Your task to perform on an android device: What's the weather? Image 0: 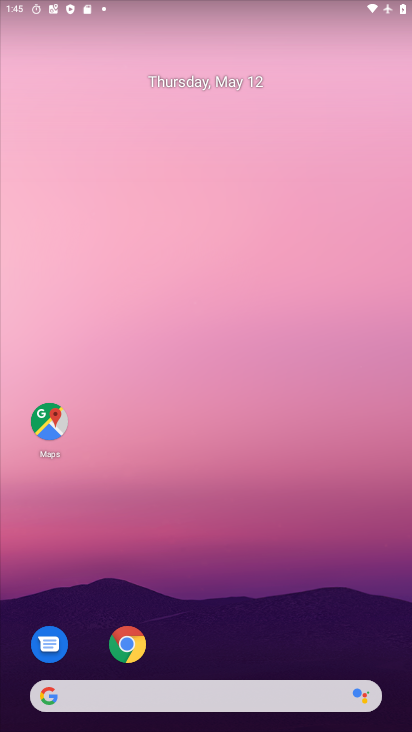
Step 0: drag from (277, 604) to (255, 99)
Your task to perform on an android device: What's the weather? Image 1: 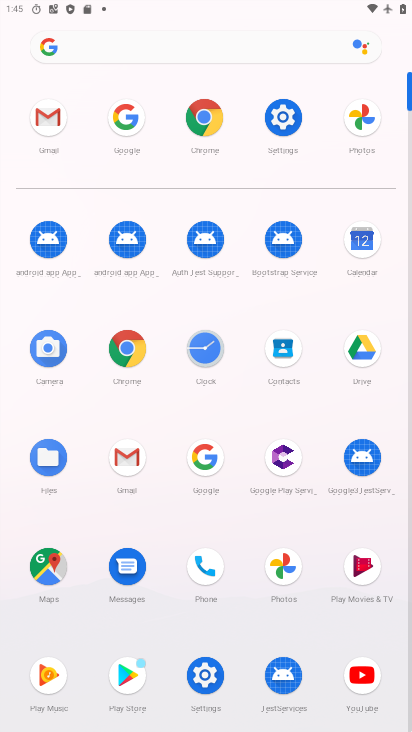
Step 1: click (197, 446)
Your task to perform on an android device: What's the weather? Image 2: 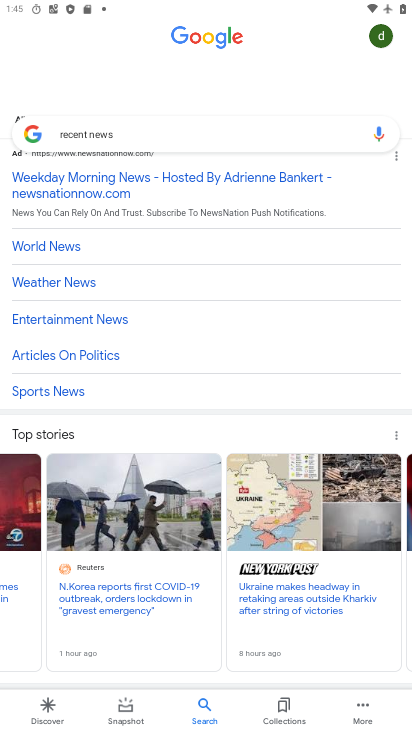
Step 2: click (142, 138)
Your task to perform on an android device: What's the weather? Image 3: 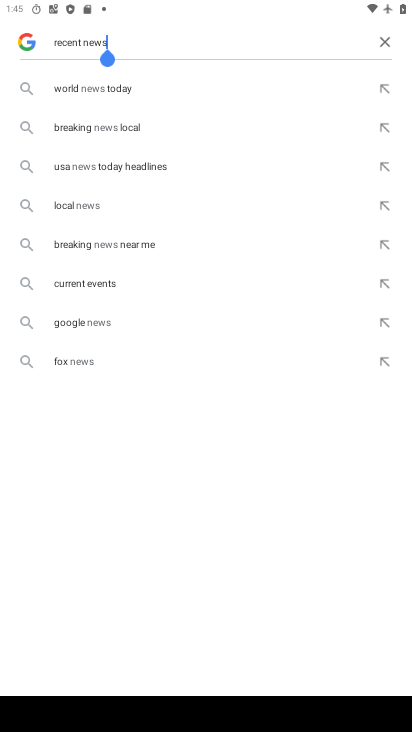
Step 3: click (388, 37)
Your task to perform on an android device: What's the weather? Image 4: 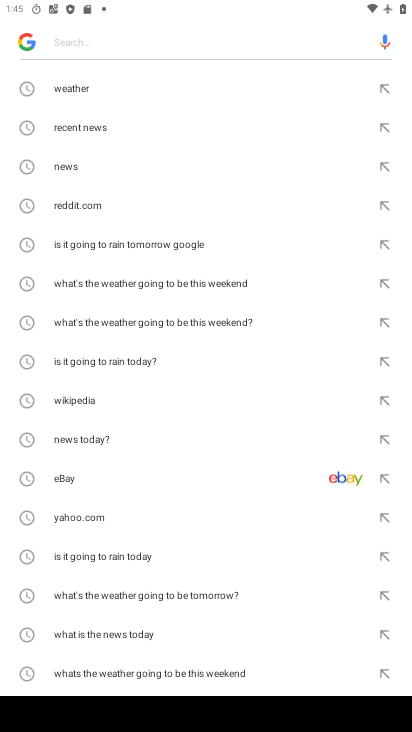
Step 4: click (158, 87)
Your task to perform on an android device: What's the weather? Image 5: 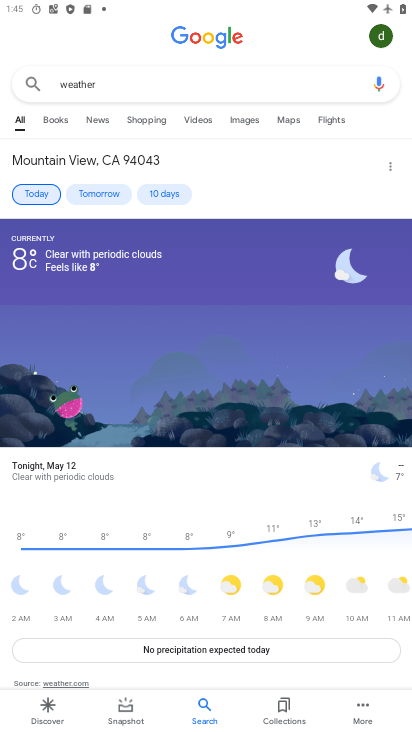
Step 5: task complete